Your task to perform on an android device: Is it going to rain this weekend? Image 0: 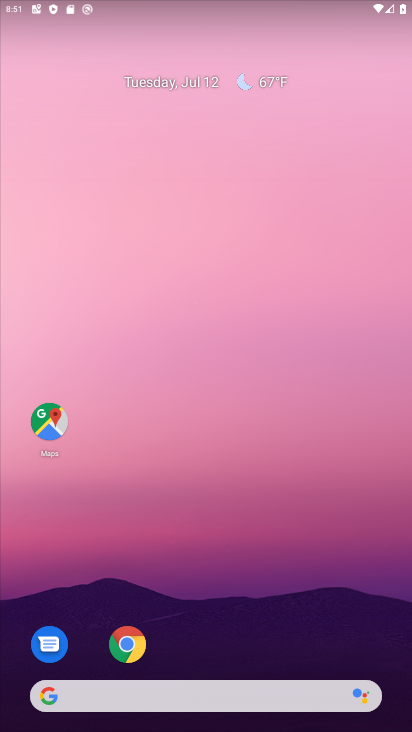
Step 0: drag from (166, 607) to (213, 51)
Your task to perform on an android device: Is it going to rain this weekend? Image 1: 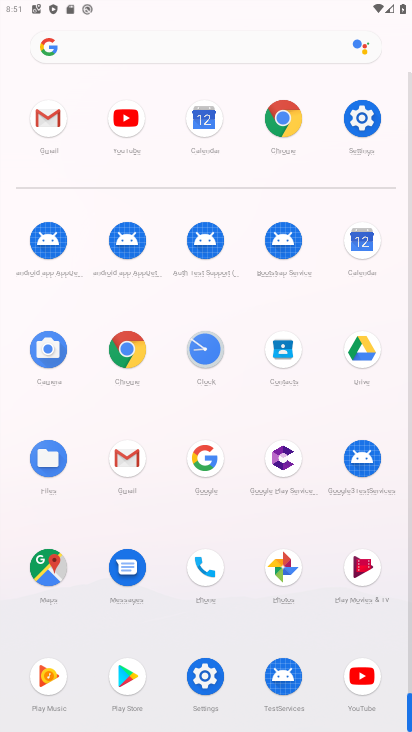
Step 1: click (372, 241)
Your task to perform on an android device: Is it going to rain this weekend? Image 2: 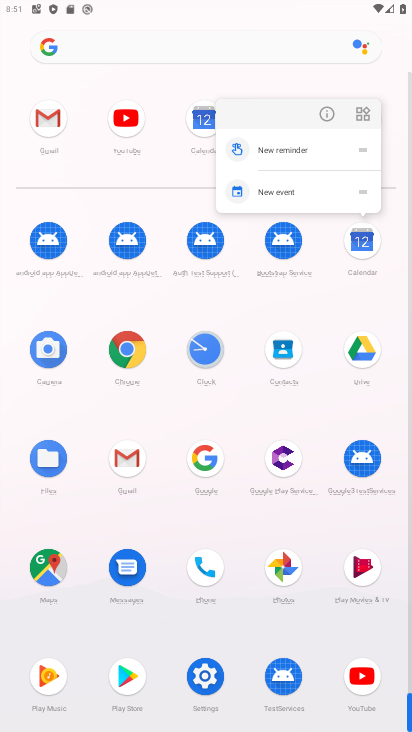
Step 2: click (322, 112)
Your task to perform on an android device: Is it going to rain this weekend? Image 3: 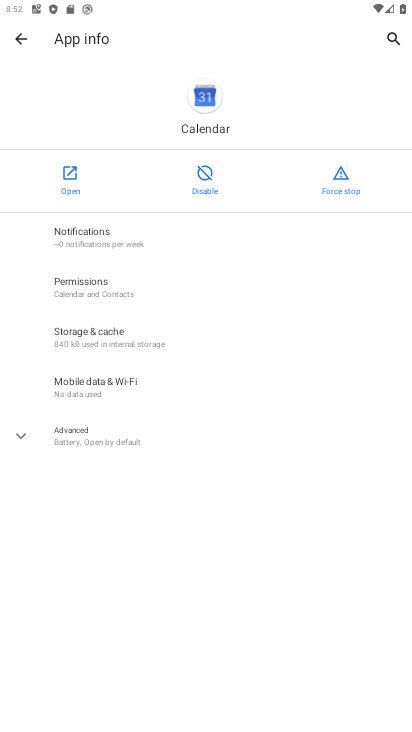
Step 3: click (63, 184)
Your task to perform on an android device: Is it going to rain this weekend? Image 4: 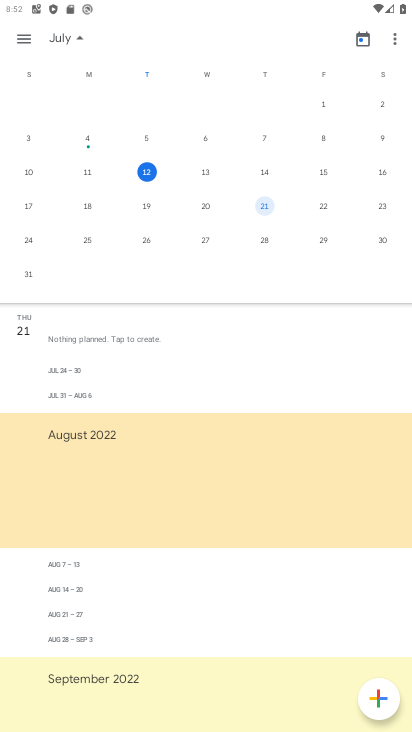
Step 4: drag from (231, 564) to (257, 179)
Your task to perform on an android device: Is it going to rain this weekend? Image 5: 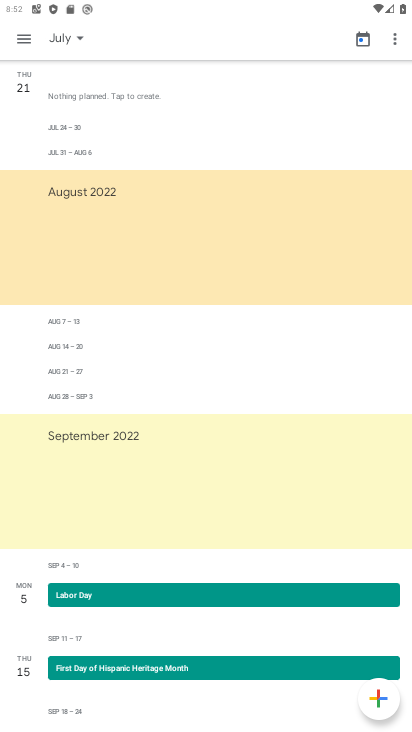
Step 5: drag from (175, 232) to (299, 660)
Your task to perform on an android device: Is it going to rain this weekend? Image 6: 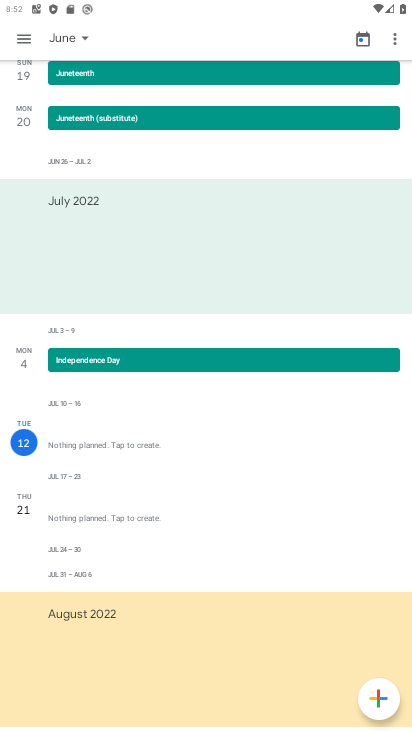
Step 6: drag from (172, 160) to (347, 553)
Your task to perform on an android device: Is it going to rain this weekend? Image 7: 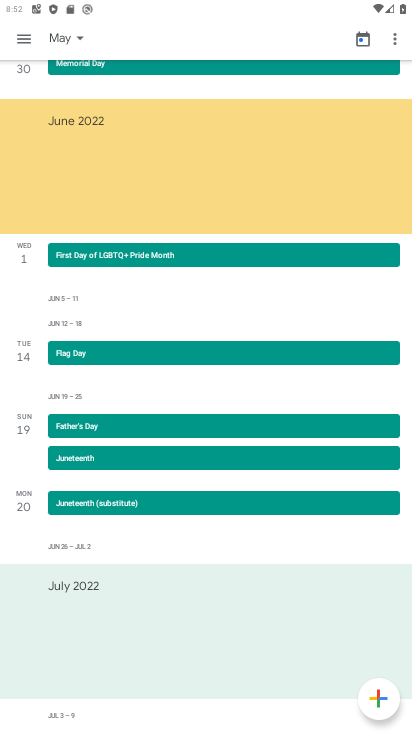
Step 7: drag from (204, 86) to (292, 686)
Your task to perform on an android device: Is it going to rain this weekend? Image 8: 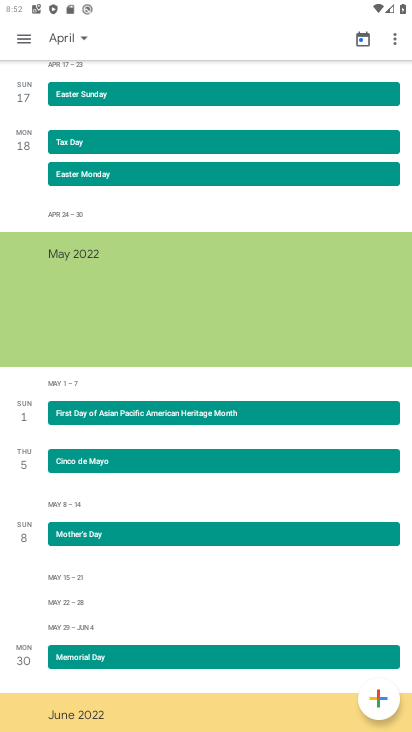
Step 8: drag from (238, 126) to (333, 731)
Your task to perform on an android device: Is it going to rain this weekend? Image 9: 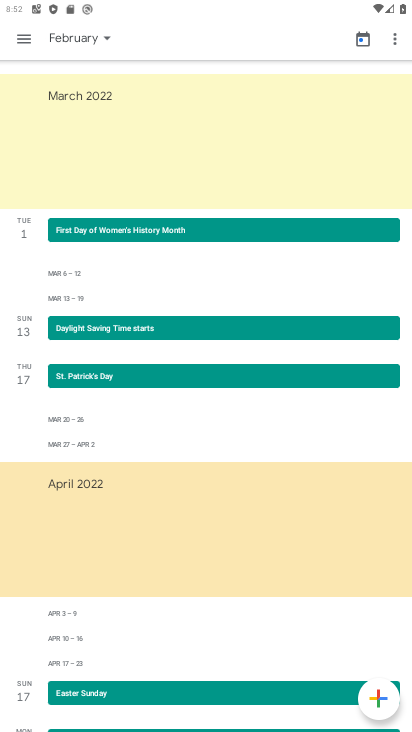
Step 9: drag from (245, 222) to (351, 730)
Your task to perform on an android device: Is it going to rain this weekend? Image 10: 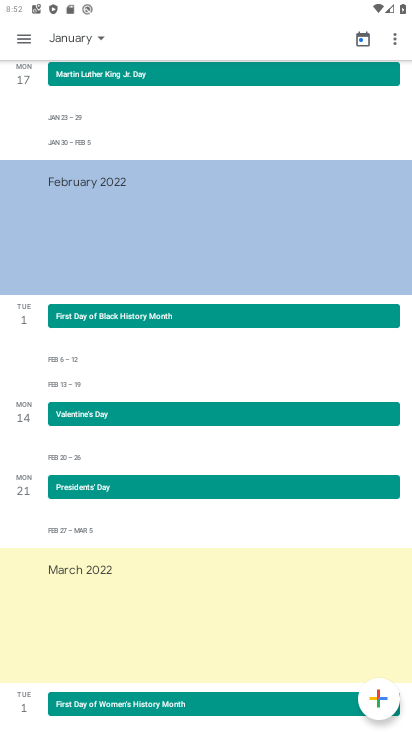
Step 10: drag from (247, 270) to (383, 721)
Your task to perform on an android device: Is it going to rain this weekend? Image 11: 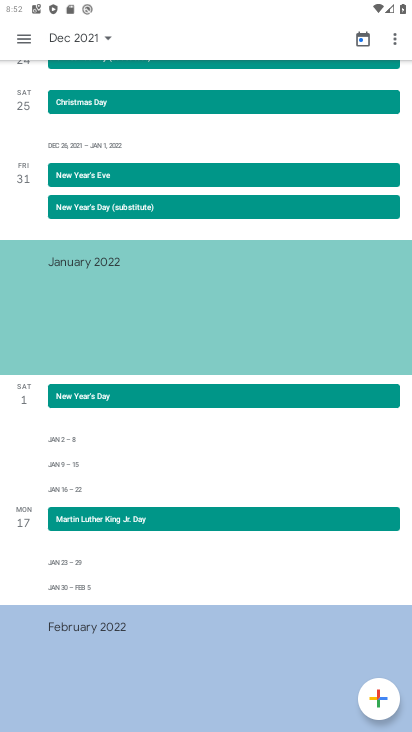
Step 11: drag from (264, 146) to (368, 718)
Your task to perform on an android device: Is it going to rain this weekend? Image 12: 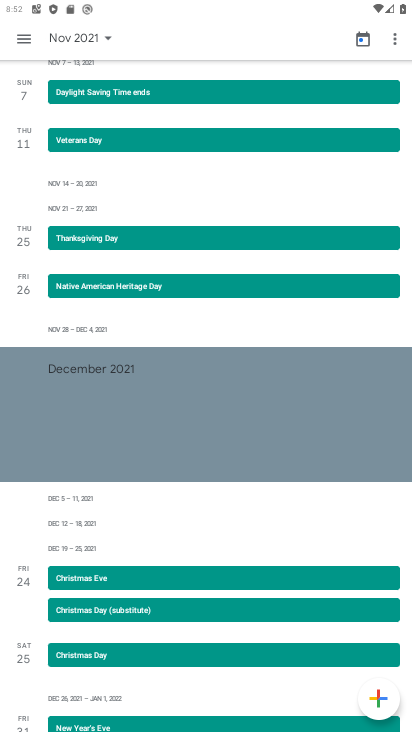
Step 12: drag from (237, 211) to (289, 656)
Your task to perform on an android device: Is it going to rain this weekend? Image 13: 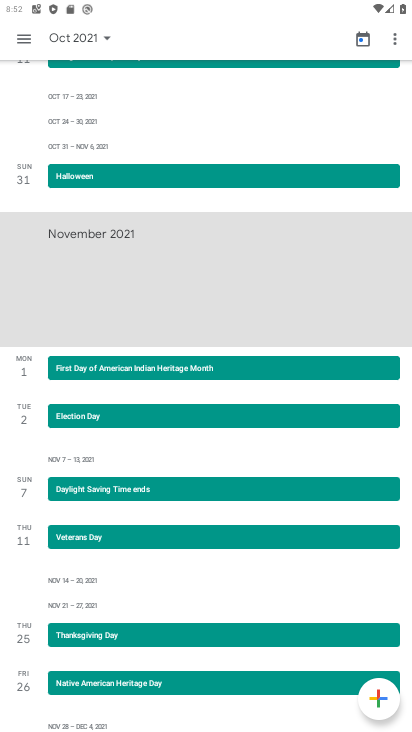
Step 13: click (80, 45)
Your task to perform on an android device: Is it going to rain this weekend? Image 14: 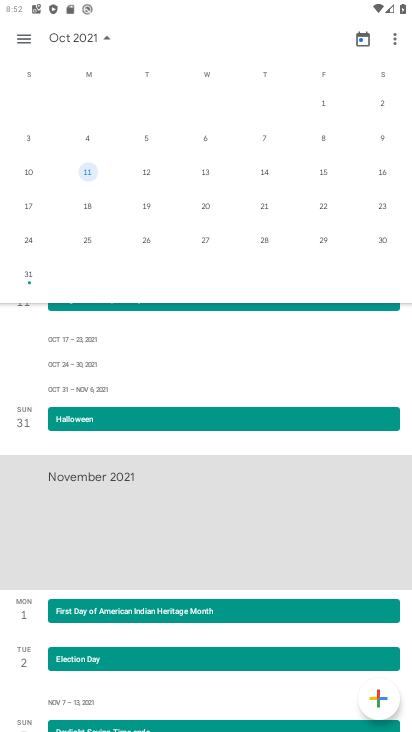
Step 14: press home button
Your task to perform on an android device: Is it going to rain this weekend? Image 15: 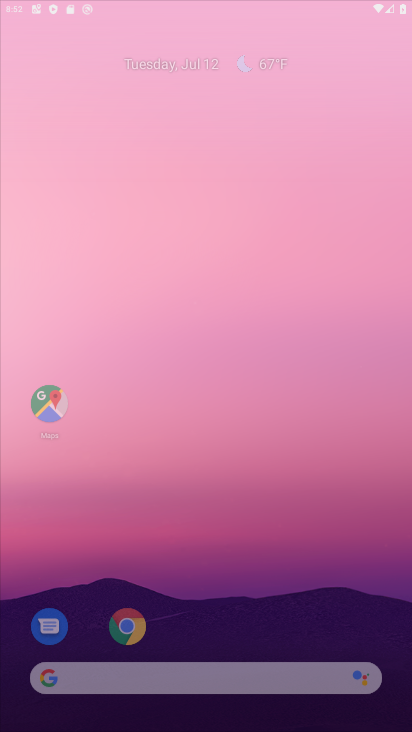
Step 15: drag from (112, 525) to (192, 103)
Your task to perform on an android device: Is it going to rain this weekend? Image 16: 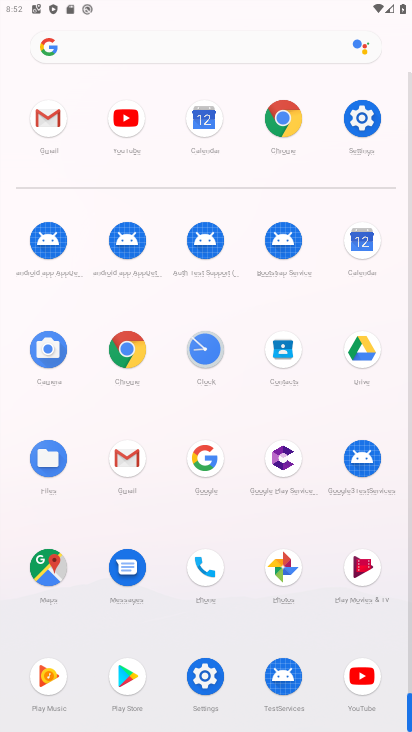
Step 16: click (192, 48)
Your task to perform on an android device: Is it going to rain this weekend? Image 17: 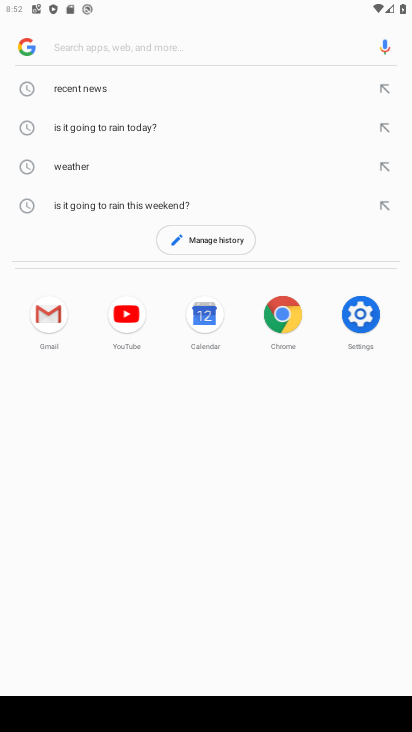
Step 17: click (154, 204)
Your task to perform on an android device: Is it going to rain this weekend? Image 18: 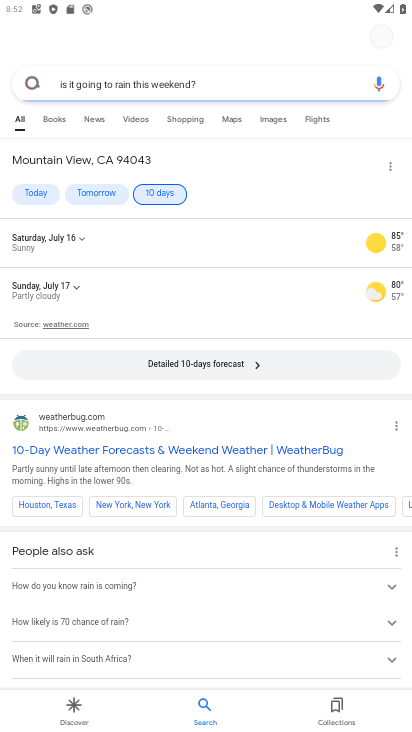
Step 18: task complete